Your task to perform on an android device: Open maps Image 0: 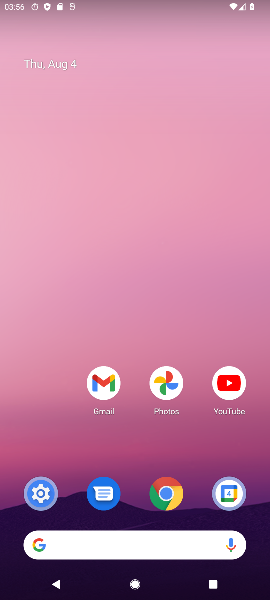
Step 0: drag from (72, 394) to (115, 73)
Your task to perform on an android device: Open maps Image 1: 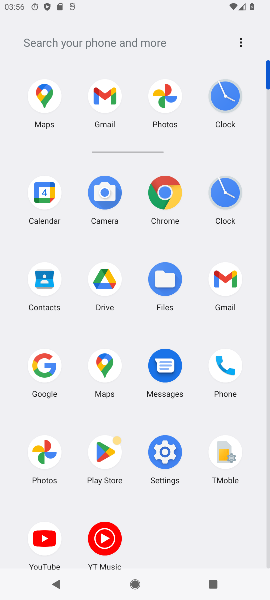
Step 1: click (110, 370)
Your task to perform on an android device: Open maps Image 2: 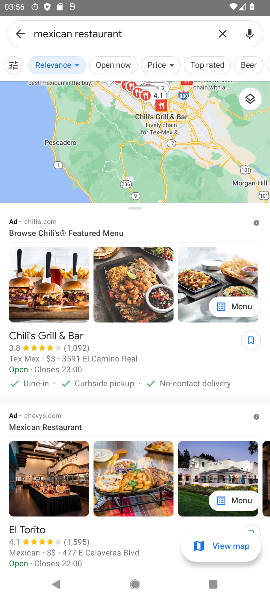
Step 2: click (19, 36)
Your task to perform on an android device: Open maps Image 3: 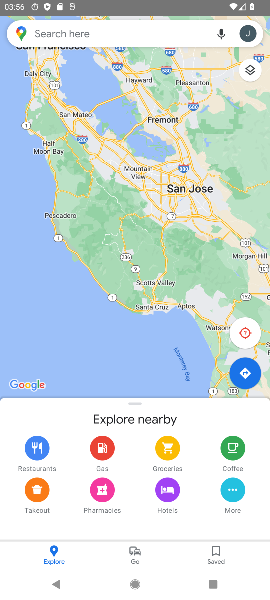
Step 3: task complete